Your task to perform on an android device: change notifications settings Image 0: 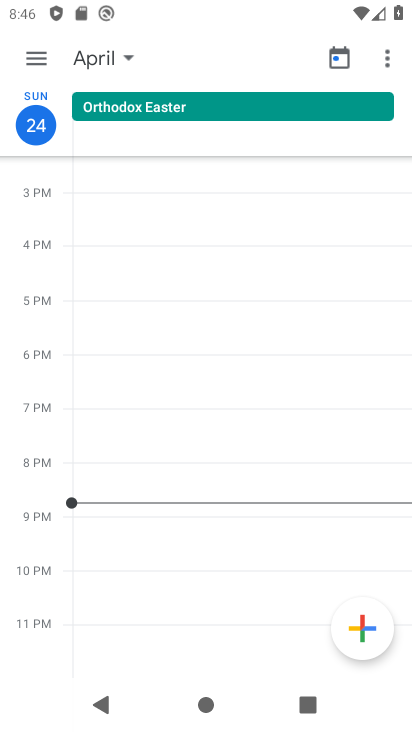
Step 0: press home button
Your task to perform on an android device: change notifications settings Image 1: 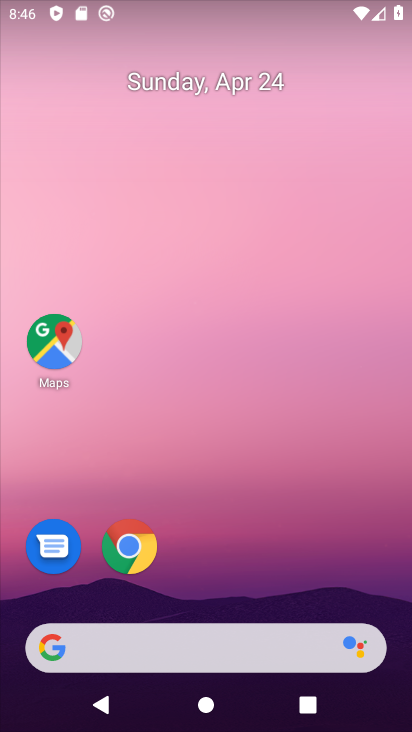
Step 1: drag from (204, 593) to (325, 118)
Your task to perform on an android device: change notifications settings Image 2: 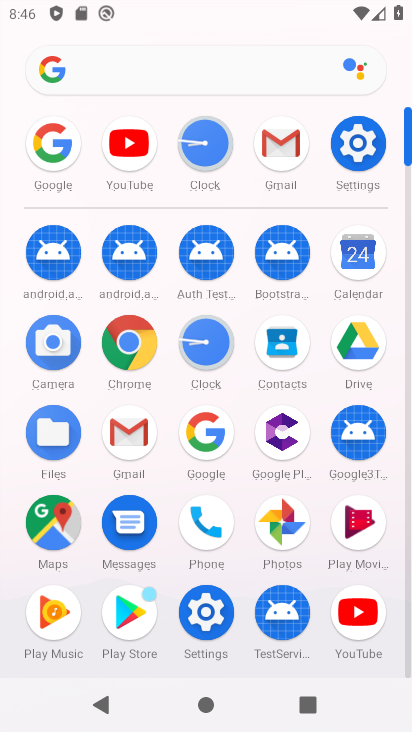
Step 2: click (354, 138)
Your task to perform on an android device: change notifications settings Image 3: 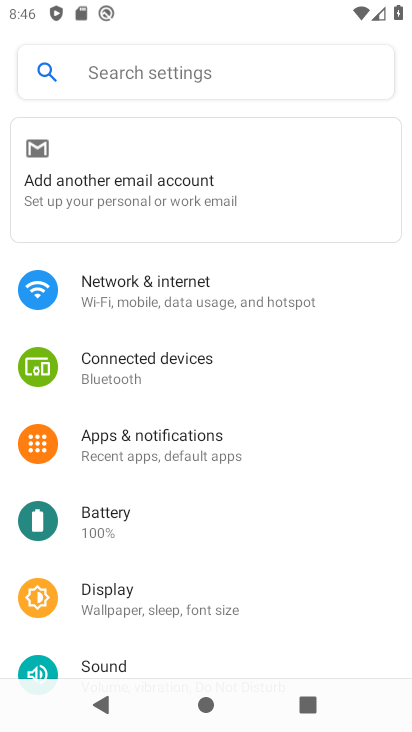
Step 3: click (158, 441)
Your task to perform on an android device: change notifications settings Image 4: 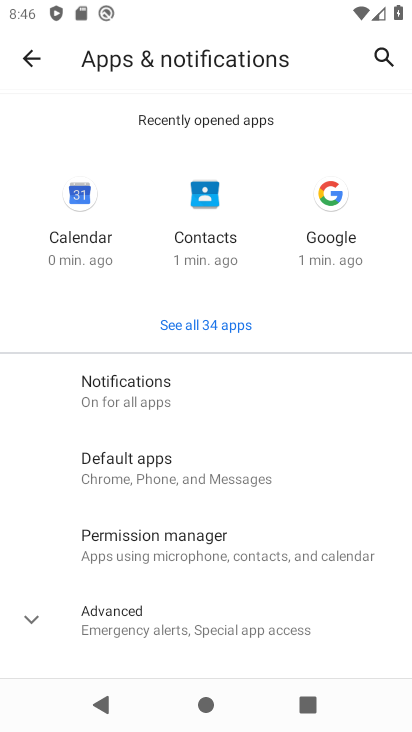
Step 4: click (119, 402)
Your task to perform on an android device: change notifications settings Image 5: 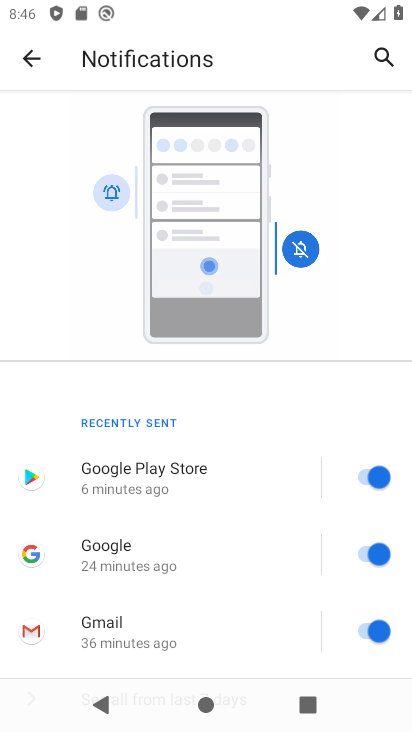
Step 5: drag from (246, 606) to (317, 146)
Your task to perform on an android device: change notifications settings Image 6: 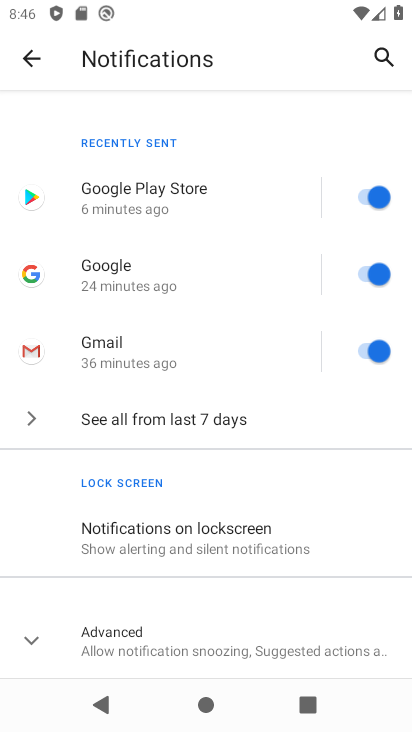
Step 6: click (186, 629)
Your task to perform on an android device: change notifications settings Image 7: 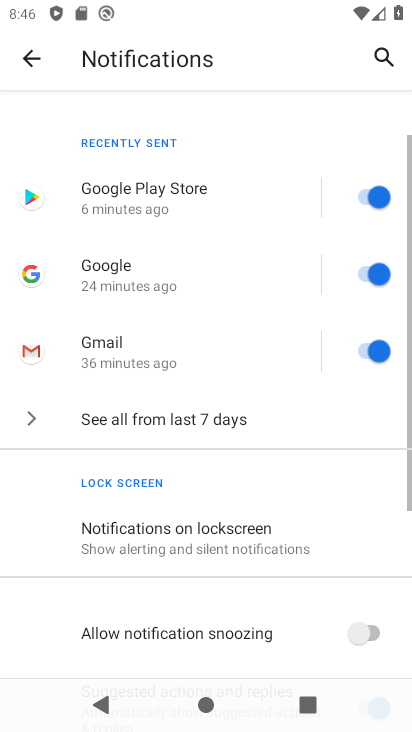
Step 7: drag from (259, 535) to (283, 115)
Your task to perform on an android device: change notifications settings Image 8: 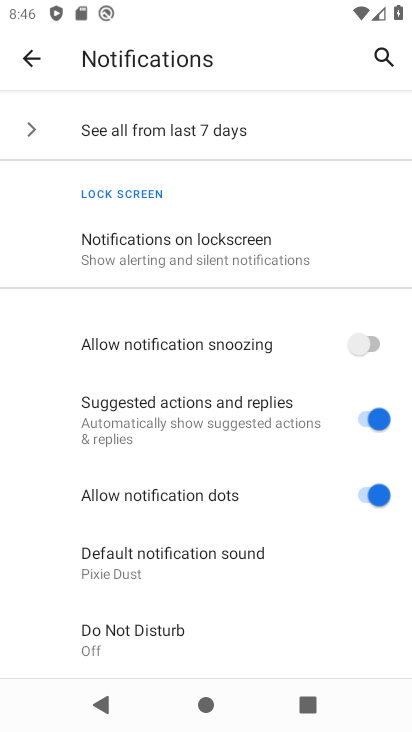
Step 8: click (353, 351)
Your task to perform on an android device: change notifications settings Image 9: 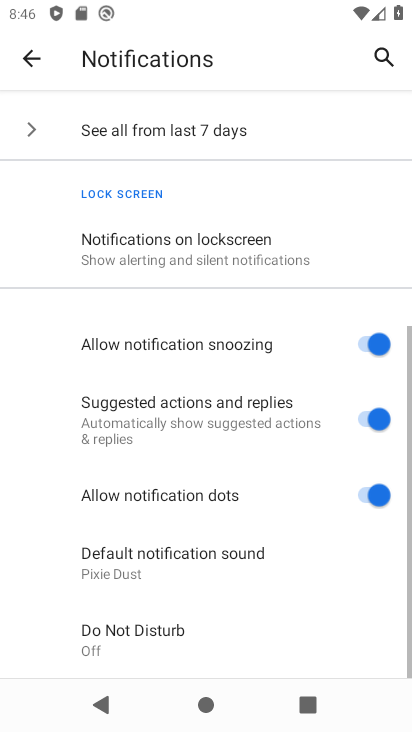
Step 9: click (374, 424)
Your task to perform on an android device: change notifications settings Image 10: 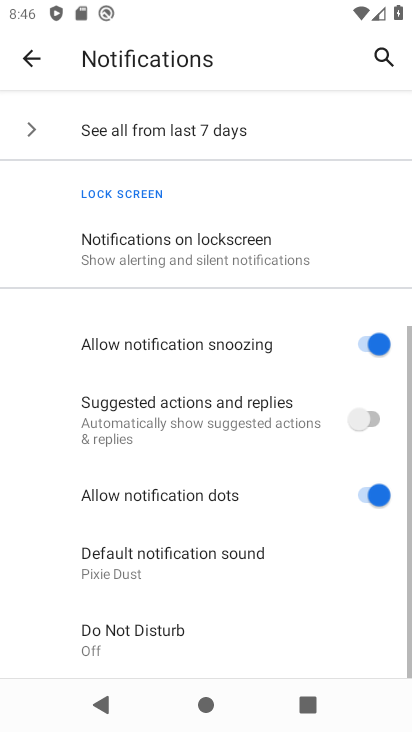
Step 10: click (375, 504)
Your task to perform on an android device: change notifications settings Image 11: 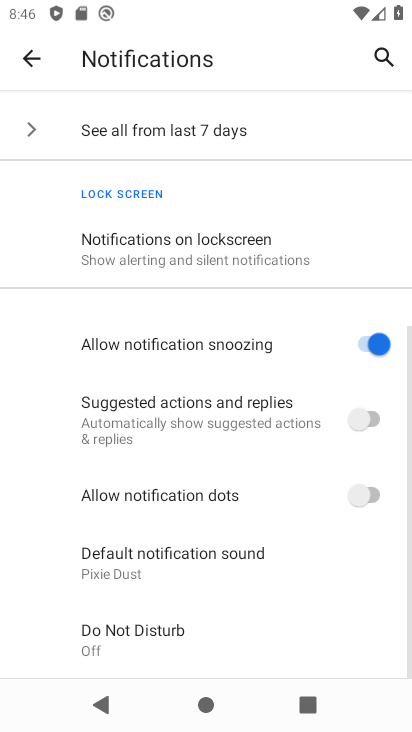
Step 11: task complete